Your task to perform on an android device: Open Maps and search for coffee Image 0: 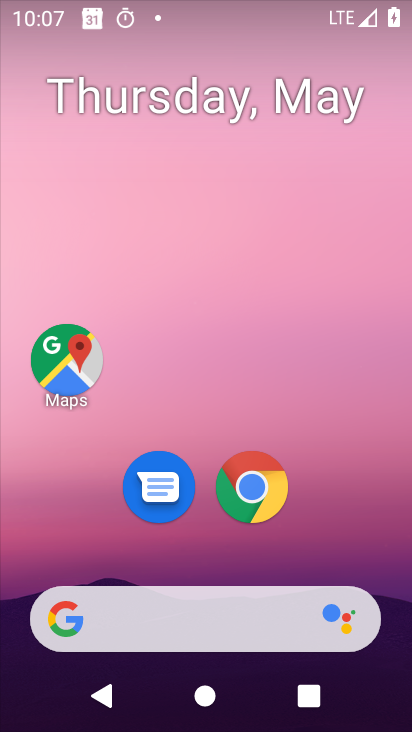
Step 0: drag from (210, 620) to (200, 163)
Your task to perform on an android device: Open Maps and search for coffee Image 1: 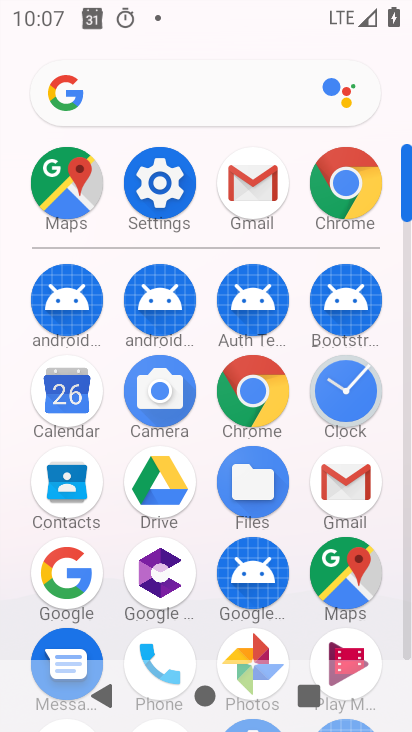
Step 1: click (371, 583)
Your task to perform on an android device: Open Maps and search for coffee Image 2: 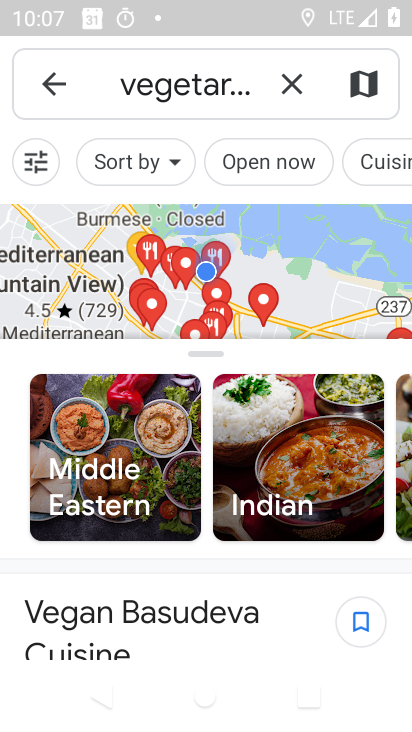
Step 2: click (294, 86)
Your task to perform on an android device: Open Maps and search for coffee Image 3: 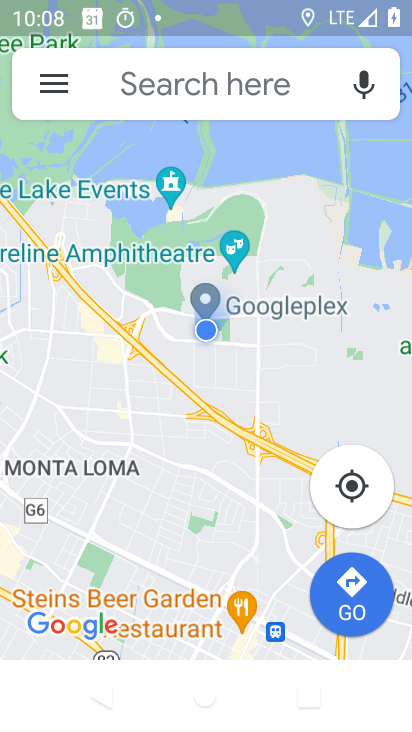
Step 3: click (257, 93)
Your task to perform on an android device: Open Maps and search for coffee Image 4: 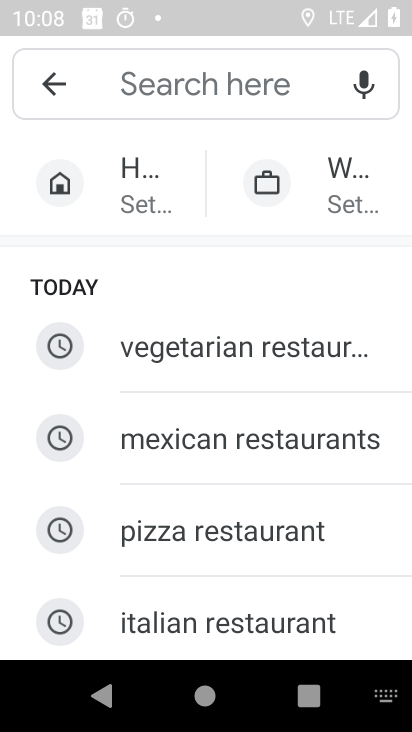
Step 4: type "coffee"
Your task to perform on an android device: Open Maps and search for coffee Image 5: 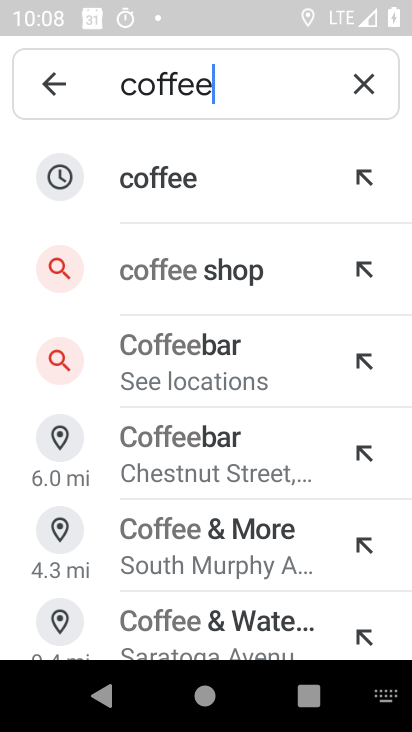
Step 5: click (238, 188)
Your task to perform on an android device: Open Maps and search for coffee Image 6: 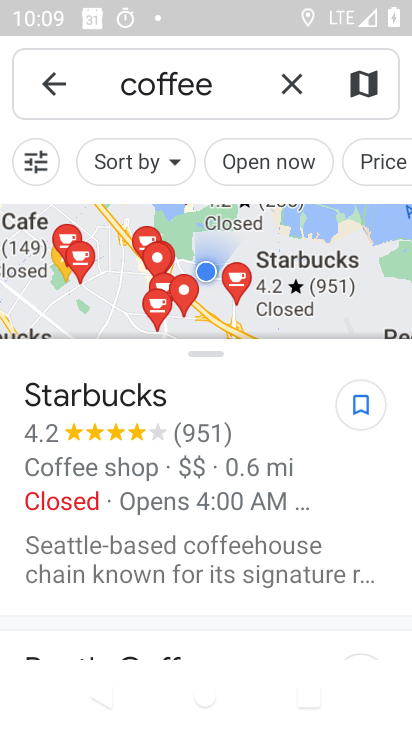
Step 6: task complete